Your task to perform on an android device: turn on location history Image 0: 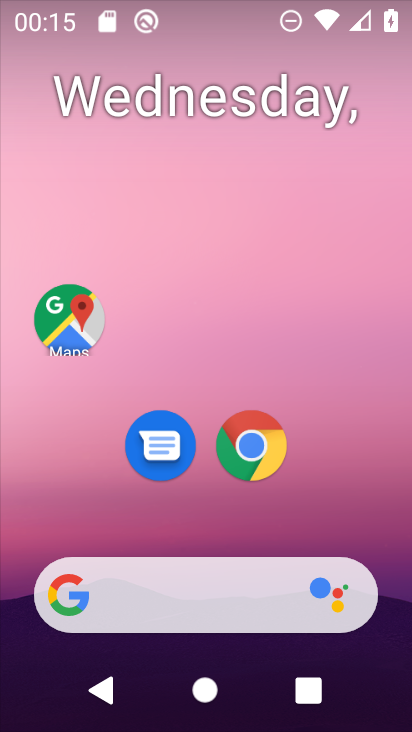
Step 0: drag from (296, 519) to (336, 23)
Your task to perform on an android device: turn on location history Image 1: 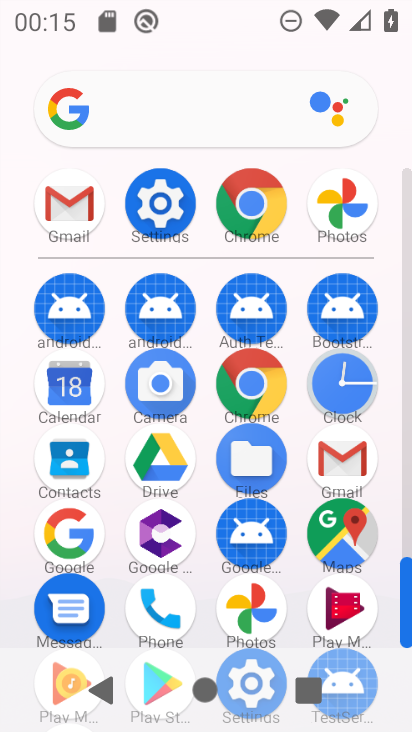
Step 1: click (170, 211)
Your task to perform on an android device: turn on location history Image 2: 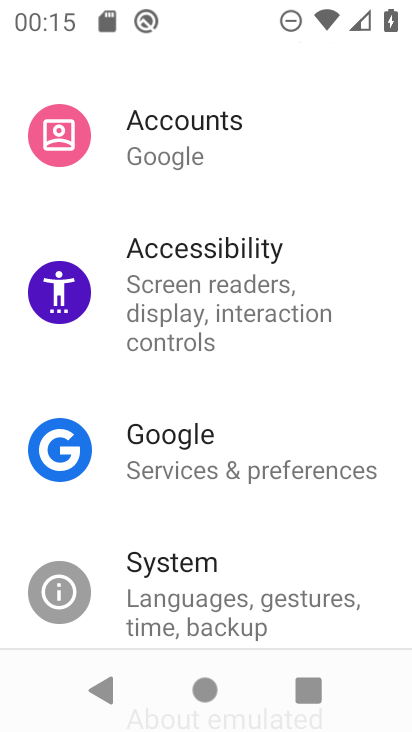
Step 2: drag from (279, 274) to (262, 598)
Your task to perform on an android device: turn on location history Image 3: 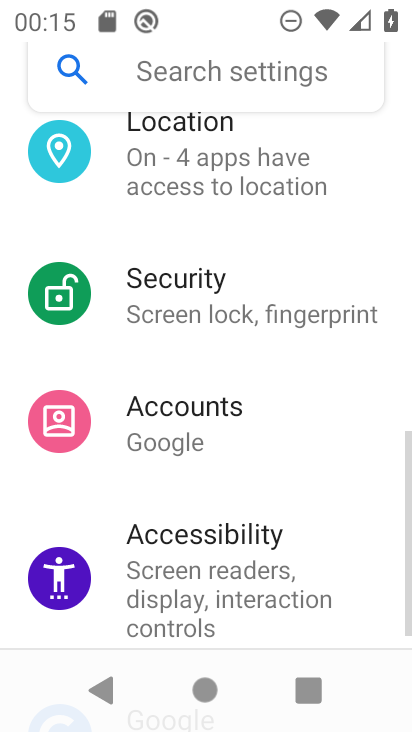
Step 3: drag from (192, 305) to (255, 579)
Your task to perform on an android device: turn on location history Image 4: 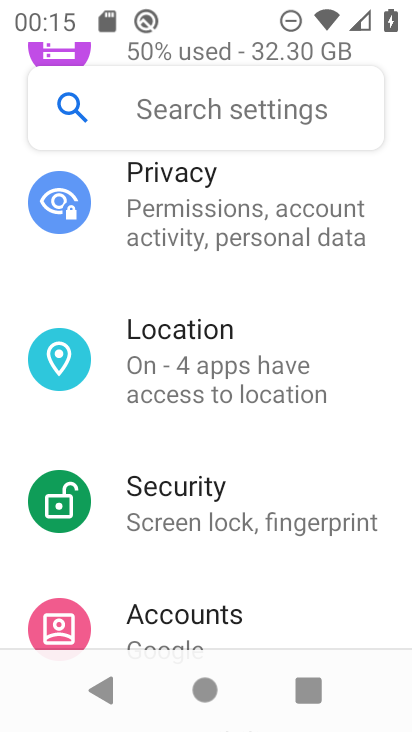
Step 4: click (196, 395)
Your task to perform on an android device: turn on location history Image 5: 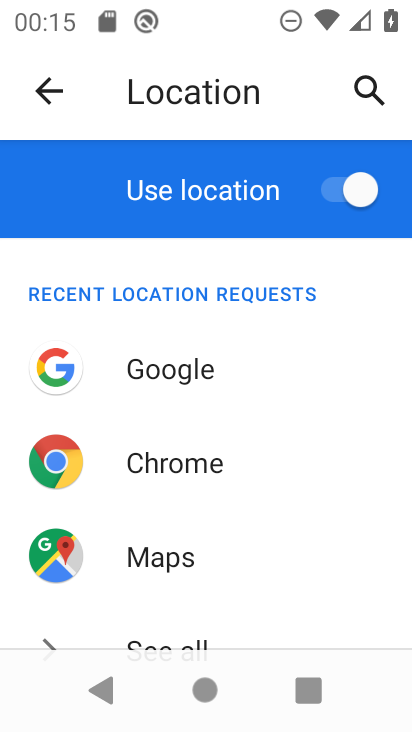
Step 5: drag from (262, 549) to (299, 146)
Your task to perform on an android device: turn on location history Image 6: 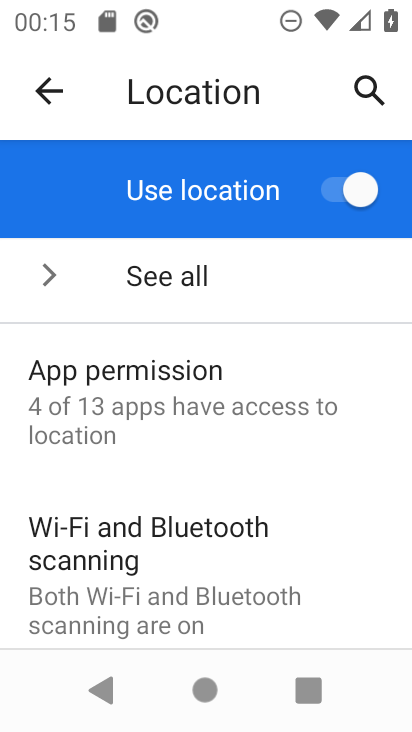
Step 6: drag from (244, 556) to (302, 235)
Your task to perform on an android device: turn on location history Image 7: 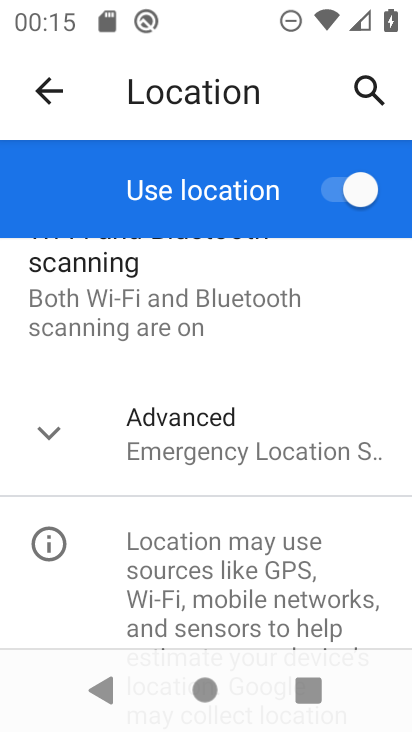
Step 7: click (143, 437)
Your task to perform on an android device: turn on location history Image 8: 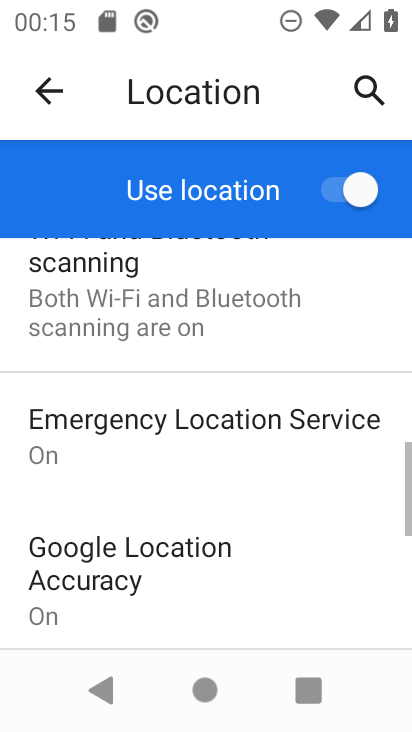
Step 8: drag from (215, 546) to (249, 285)
Your task to perform on an android device: turn on location history Image 9: 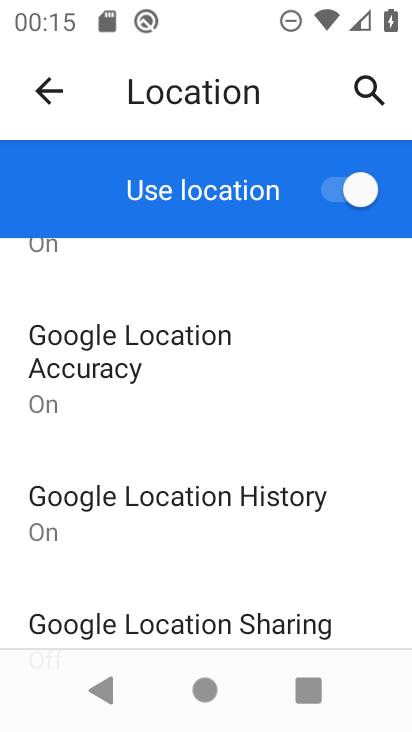
Step 9: click (223, 513)
Your task to perform on an android device: turn on location history Image 10: 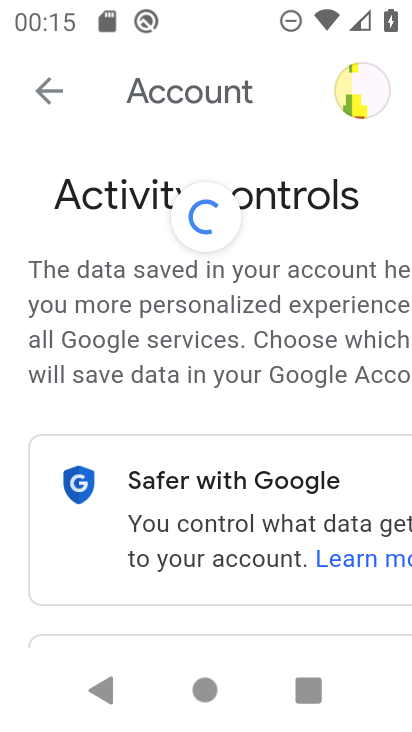
Step 10: task complete